Your task to perform on an android device: turn off notifications settings in the gmail app Image 0: 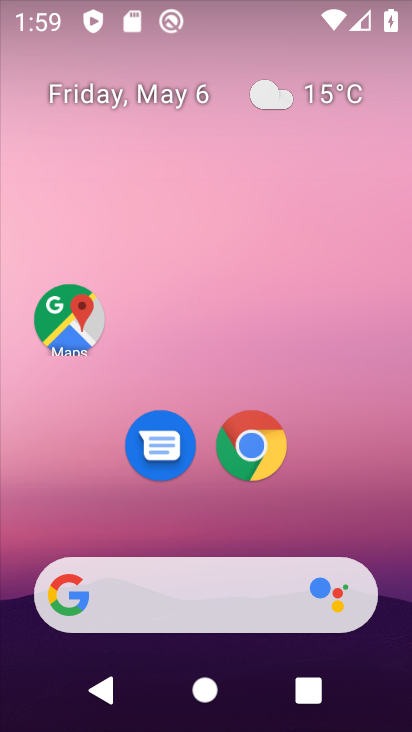
Step 0: click (235, 178)
Your task to perform on an android device: turn off notifications settings in the gmail app Image 1: 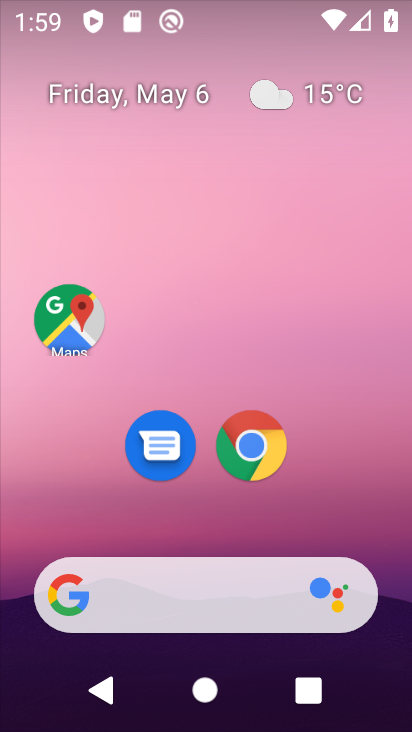
Step 1: drag from (395, 616) to (299, 0)
Your task to perform on an android device: turn off notifications settings in the gmail app Image 2: 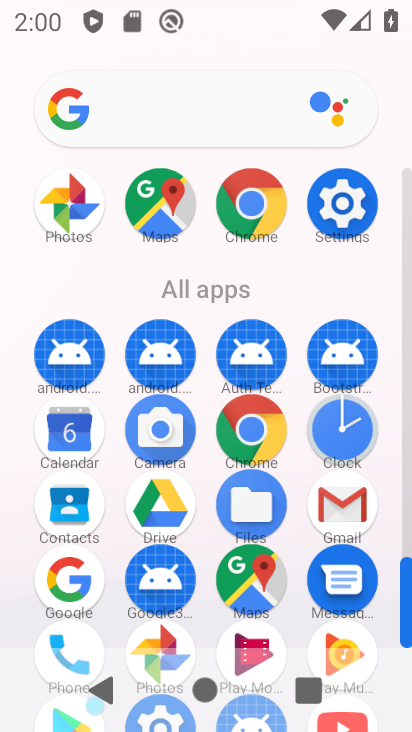
Step 2: click (331, 504)
Your task to perform on an android device: turn off notifications settings in the gmail app Image 3: 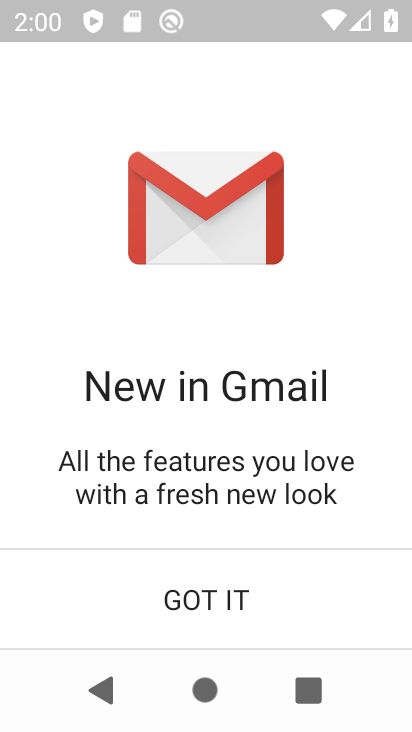
Step 3: click (205, 599)
Your task to perform on an android device: turn off notifications settings in the gmail app Image 4: 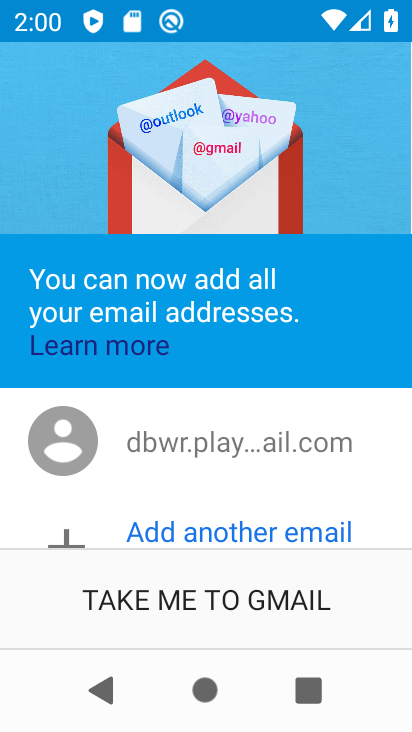
Step 4: click (170, 588)
Your task to perform on an android device: turn off notifications settings in the gmail app Image 5: 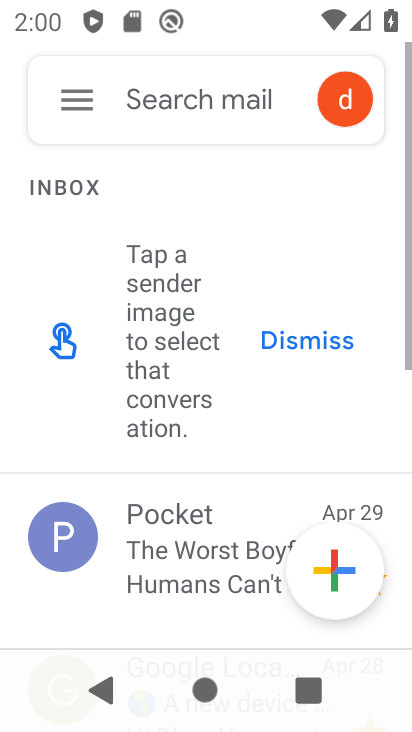
Step 5: click (71, 86)
Your task to perform on an android device: turn off notifications settings in the gmail app Image 6: 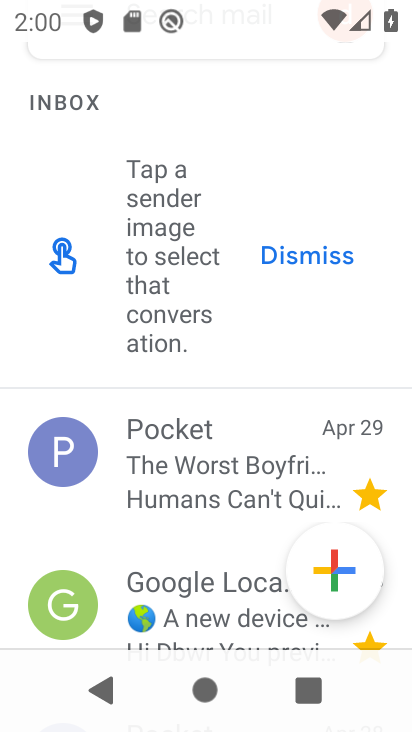
Step 6: click (79, 104)
Your task to perform on an android device: turn off notifications settings in the gmail app Image 7: 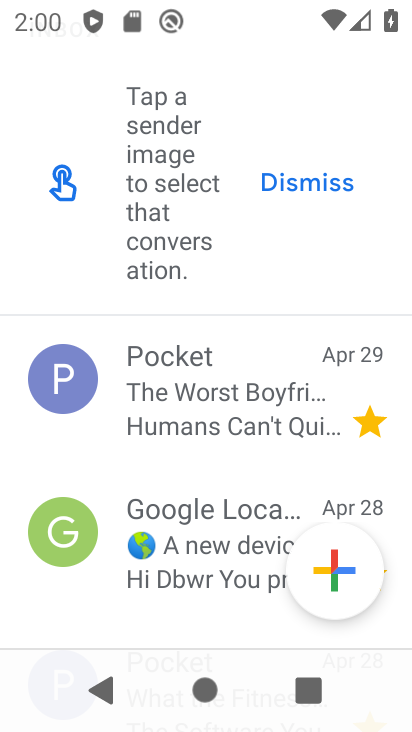
Step 7: click (79, 104)
Your task to perform on an android device: turn off notifications settings in the gmail app Image 8: 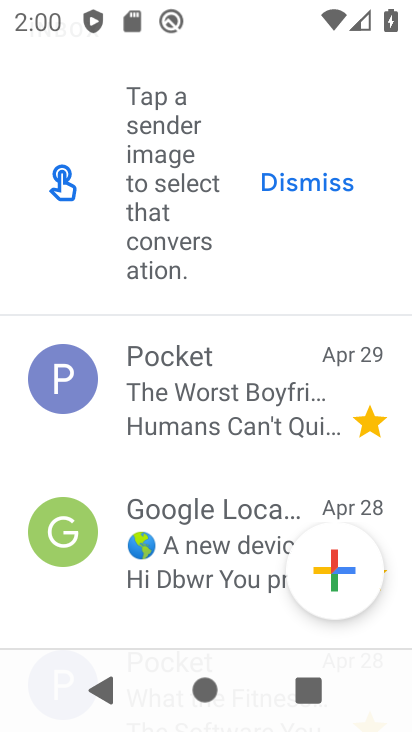
Step 8: drag from (247, 207) to (237, 5)
Your task to perform on an android device: turn off notifications settings in the gmail app Image 9: 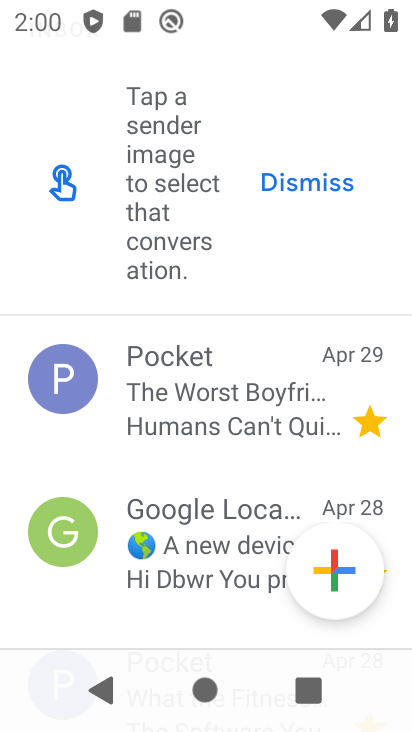
Step 9: drag from (106, 318) to (146, 559)
Your task to perform on an android device: turn off notifications settings in the gmail app Image 10: 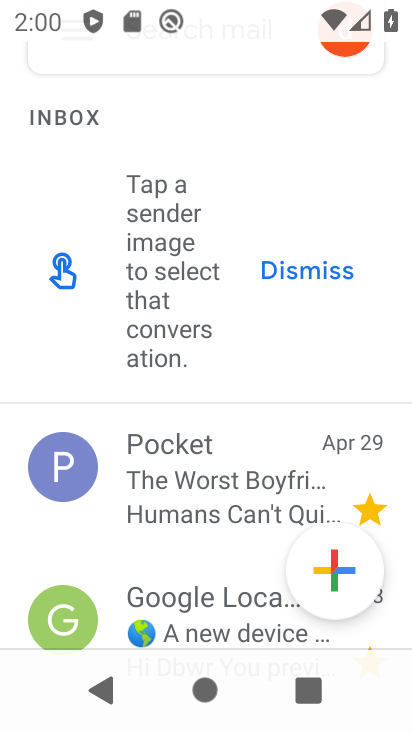
Step 10: drag from (107, 177) to (159, 477)
Your task to perform on an android device: turn off notifications settings in the gmail app Image 11: 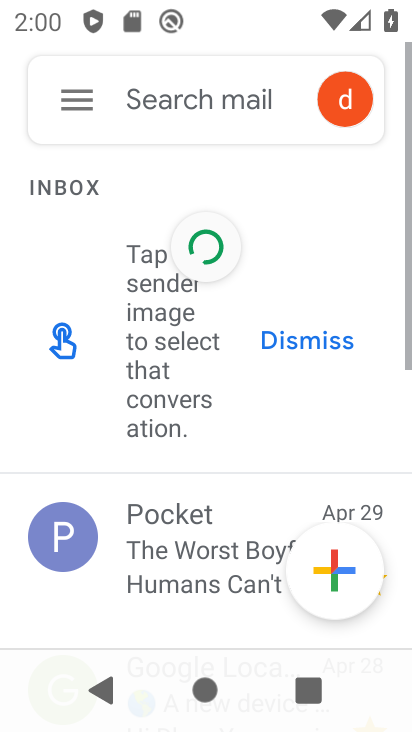
Step 11: drag from (130, 291) to (159, 490)
Your task to perform on an android device: turn off notifications settings in the gmail app Image 12: 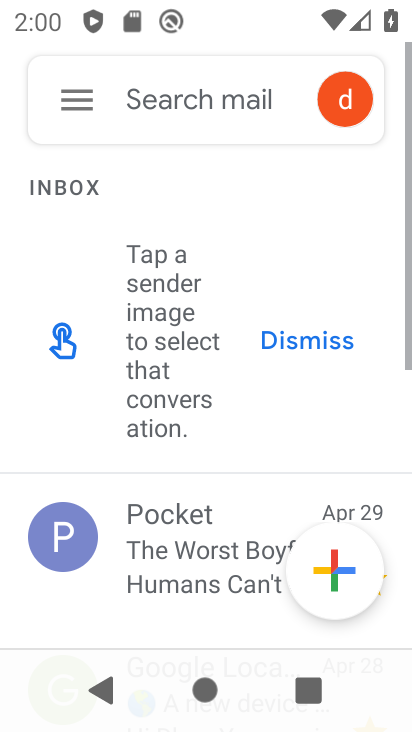
Step 12: click (83, 104)
Your task to perform on an android device: turn off notifications settings in the gmail app Image 13: 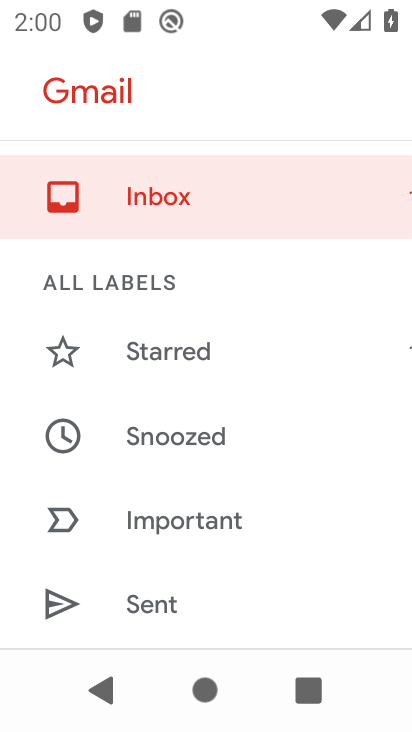
Step 13: drag from (224, 591) to (172, 155)
Your task to perform on an android device: turn off notifications settings in the gmail app Image 14: 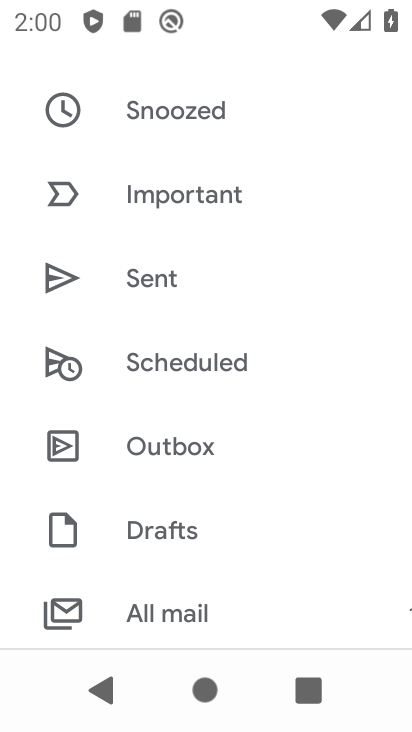
Step 14: drag from (276, 441) to (304, 99)
Your task to perform on an android device: turn off notifications settings in the gmail app Image 15: 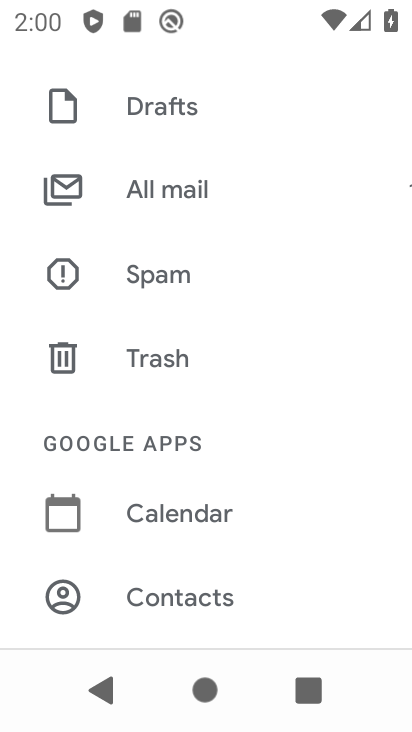
Step 15: drag from (234, 614) to (76, 76)
Your task to perform on an android device: turn off notifications settings in the gmail app Image 16: 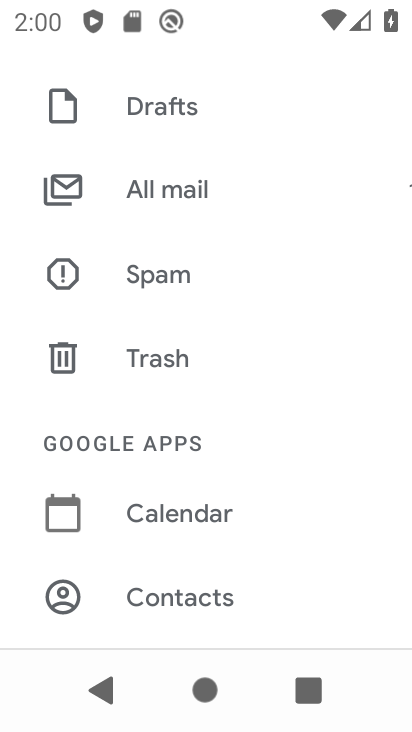
Step 16: drag from (161, 508) to (107, 22)
Your task to perform on an android device: turn off notifications settings in the gmail app Image 17: 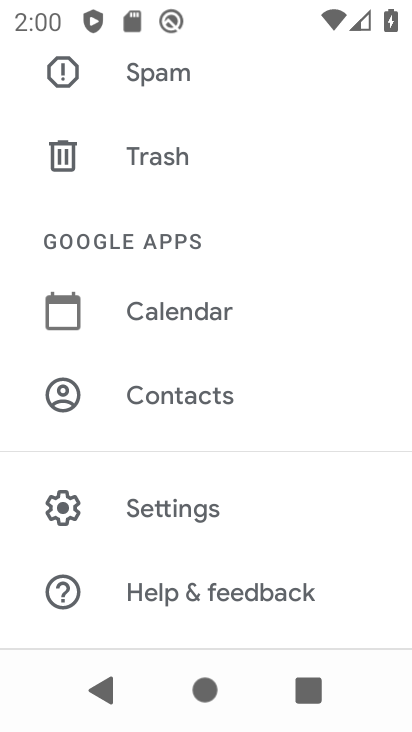
Step 17: click (153, 516)
Your task to perform on an android device: turn off notifications settings in the gmail app Image 18: 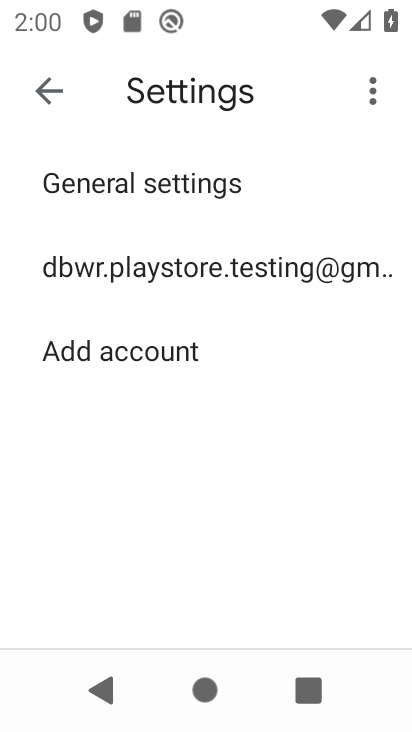
Step 18: click (132, 280)
Your task to perform on an android device: turn off notifications settings in the gmail app Image 19: 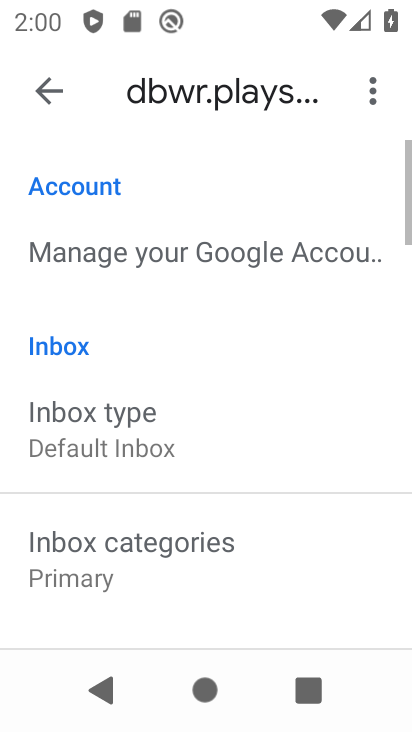
Step 19: drag from (124, 297) to (124, 52)
Your task to perform on an android device: turn off notifications settings in the gmail app Image 20: 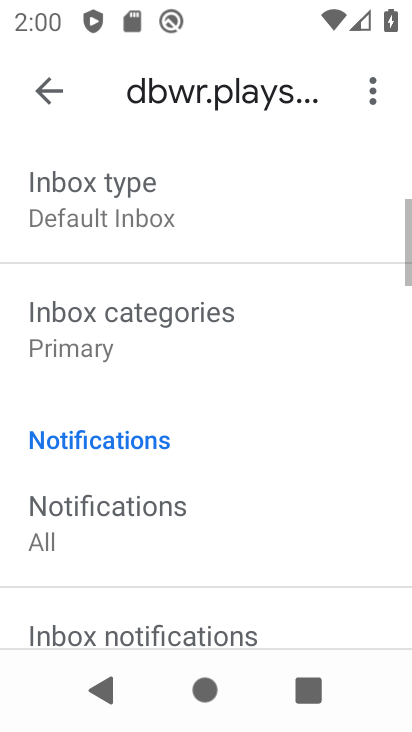
Step 20: drag from (221, 401) to (101, 35)
Your task to perform on an android device: turn off notifications settings in the gmail app Image 21: 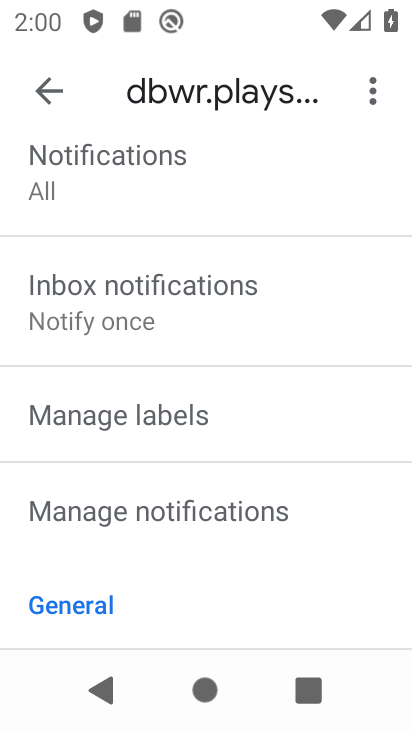
Step 21: drag from (83, 253) to (155, 557)
Your task to perform on an android device: turn off notifications settings in the gmail app Image 22: 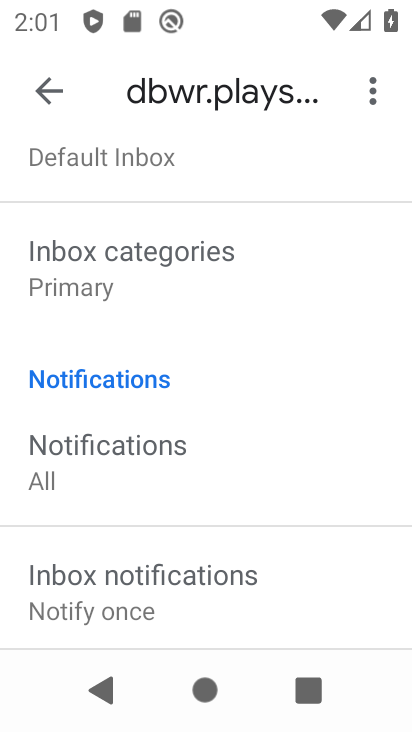
Step 22: click (103, 454)
Your task to perform on an android device: turn off notifications settings in the gmail app Image 23: 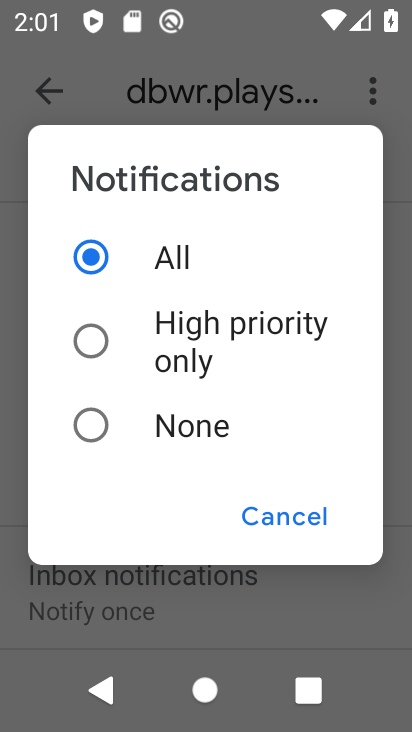
Step 23: click (87, 430)
Your task to perform on an android device: turn off notifications settings in the gmail app Image 24: 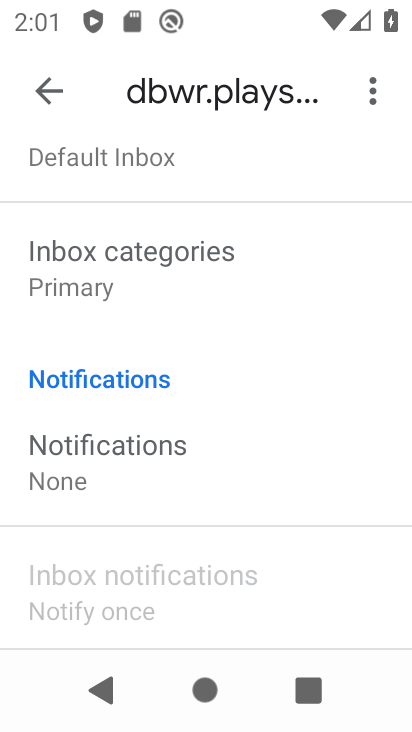
Step 24: task complete